Your task to perform on an android device: Go to location settings Image 0: 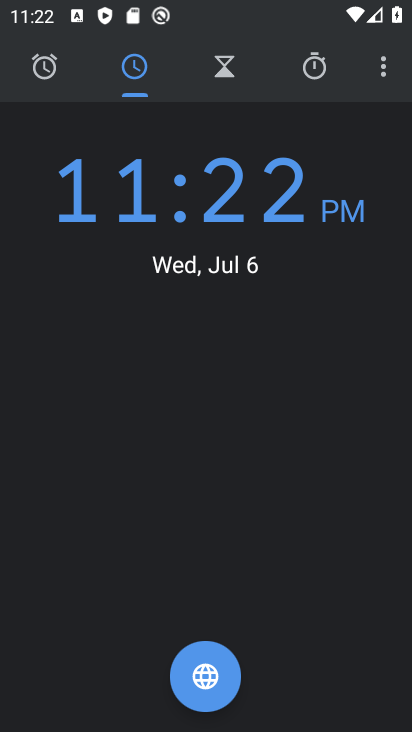
Step 0: press home button
Your task to perform on an android device: Go to location settings Image 1: 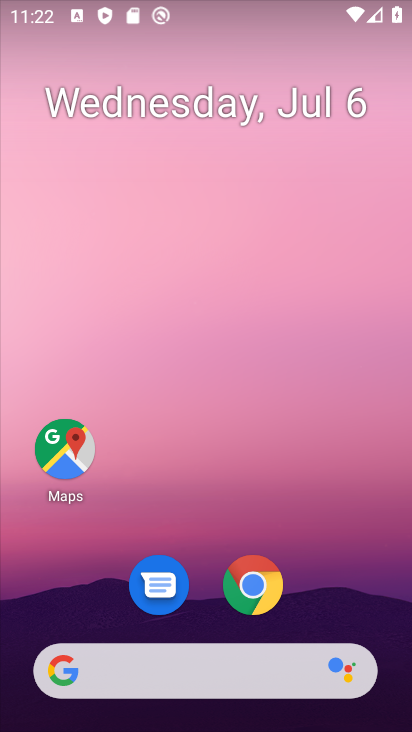
Step 1: drag from (212, 454) to (253, 7)
Your task to perform on an android device: Go to location settings Image 2: 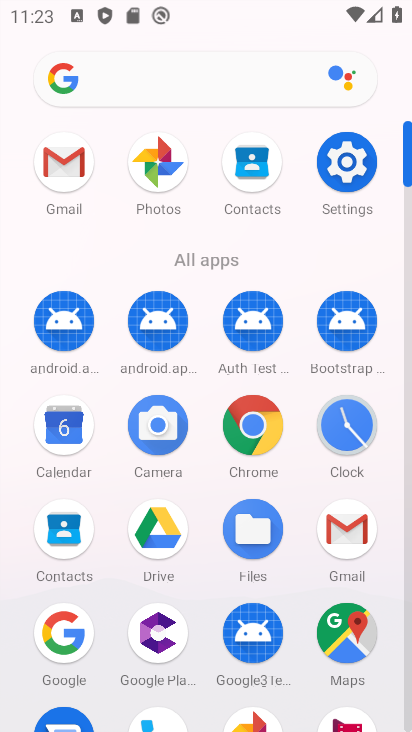
Step 2: click (337, 164)
Your task to perform on an android device: Go to location settings Image 3: 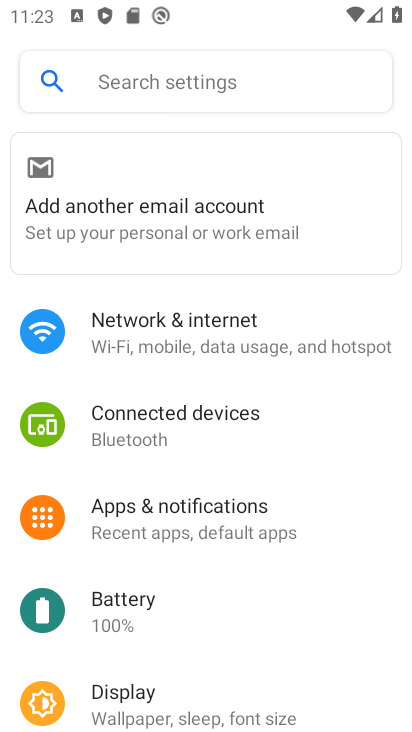
Step 3: drag from (219, 642) to (255, 63)
Your task to perform on an android device: Go to location settings Image 4: 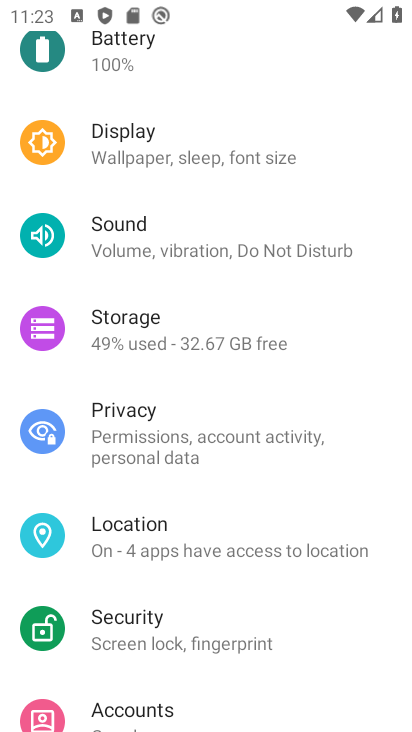
Step 4: click (182, 527)
Your task to perform on an android device: Go to location settings Image 5: 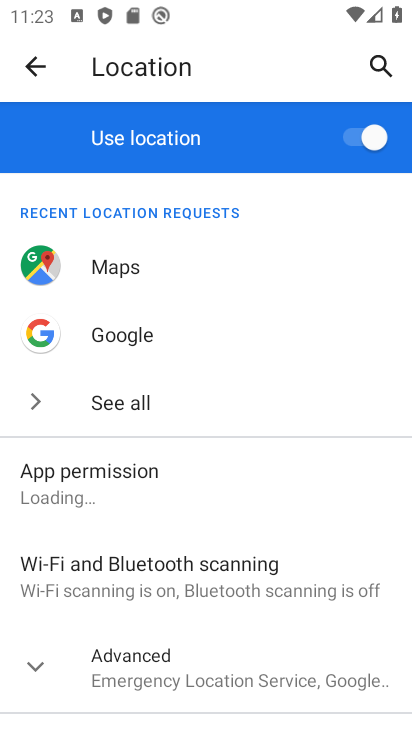
Step 5: task complete